Your task to perform on an android device: move an email to a new category in the gmail app Image 0: 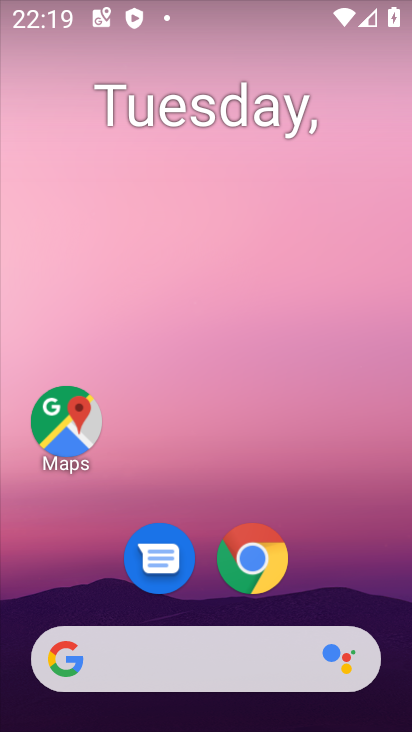
Step 0: drag from (317, 589) to (300, 48)
Your task to perform on an android device: move an email to a new category in the gmail app Image 1: 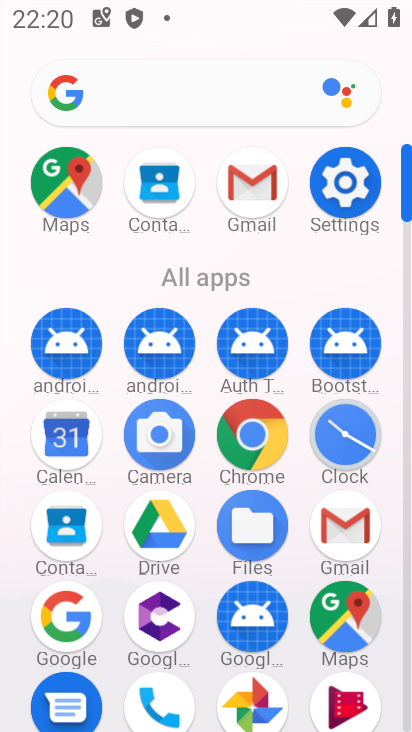
Step 1: click (329, 518)
Your task to perform on an android device: move an email to a new category in the gmail app Image 2: 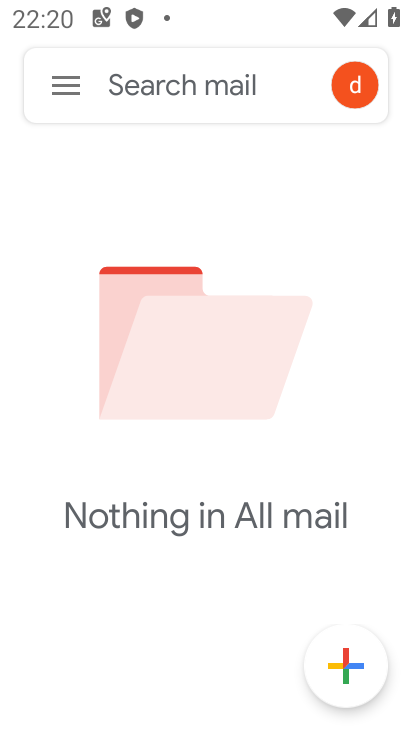
Step 2: task complete